Your task to perform on an android device: Check the weather Image 0: 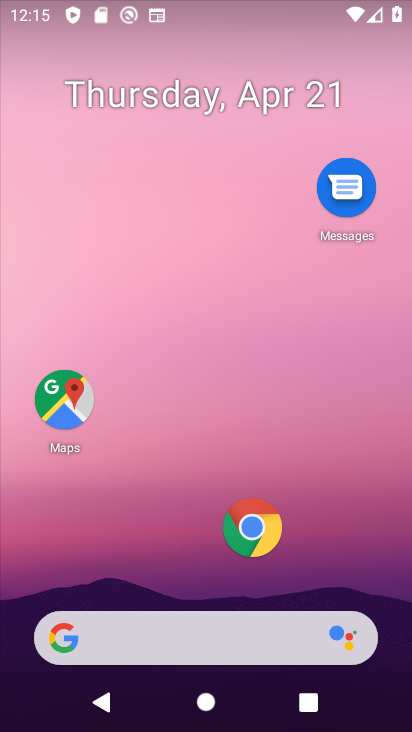
Step 0: drag from (336, 565) to (327, 81)
Your task to perform on an android device: Check the weather Image 1: 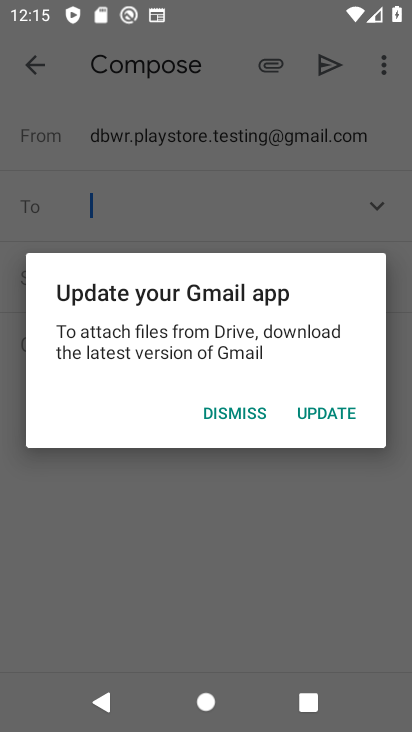
Step 1: press home button
Your task to perform on an android device: Check the weather Image 2: 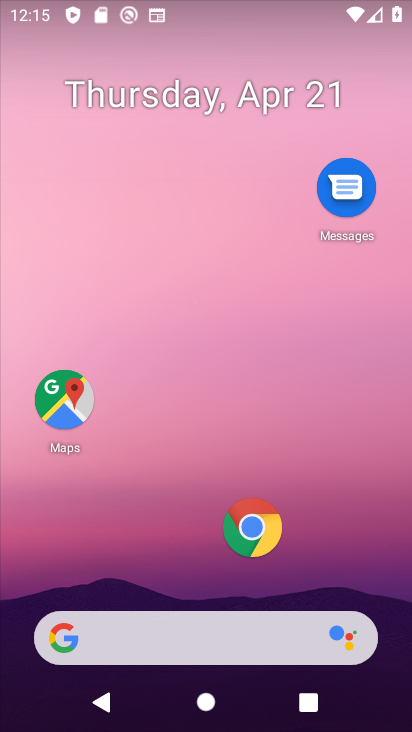
Step 2: drag from (280, 574) to (289, 91)
Your task to perform on an android device: Check the weather Image 3: 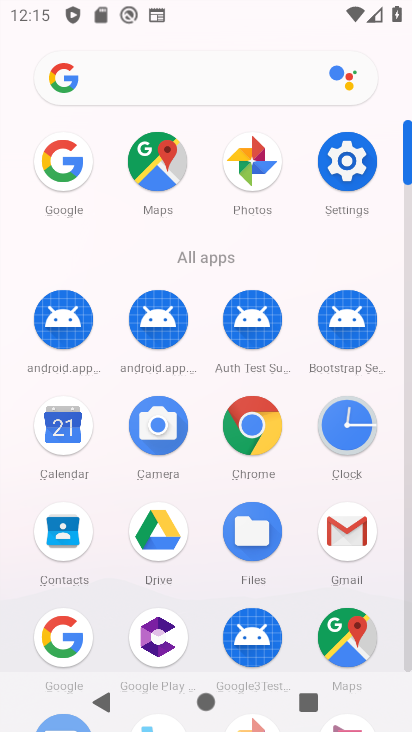
Step 3: click (123, 80)
Your task to perform on an android device: Check the weather Image 4: 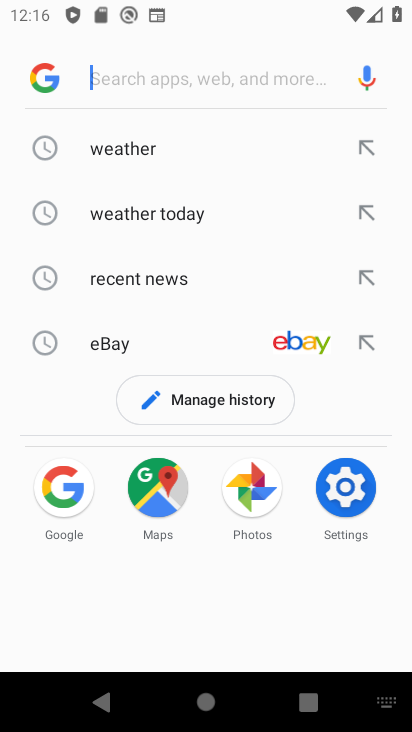
Step 4: type "weather"
Your task to perform on an android device: Check the weather Image 5: 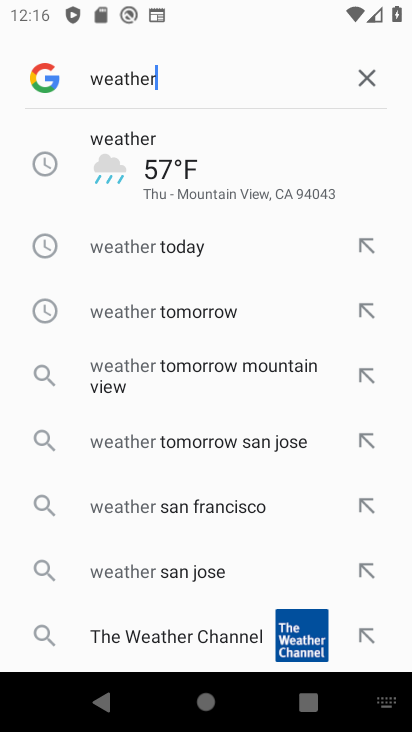
Step 5: click (162, 177)
Your task to perform on an android device: Check the weather Image 6: 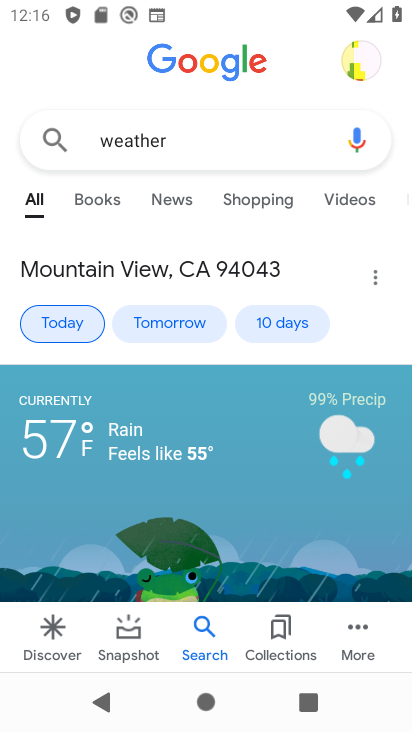
Step 6: task complete